Your task to perform on an android device: change the clock display to analog Image 0: 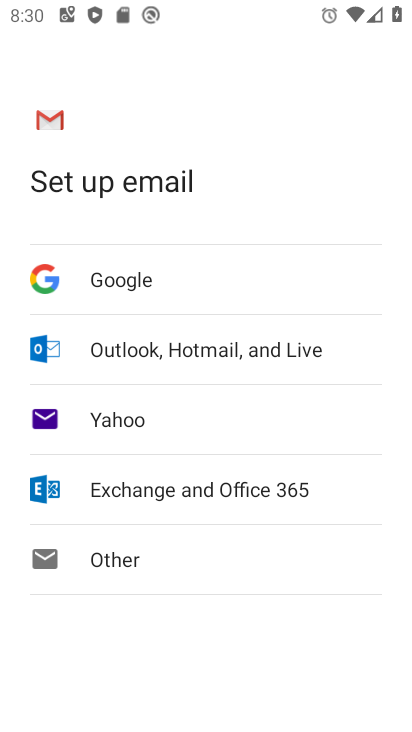
Step 0: press home button
Your task to perform on an android device: change the clock display to analog Image 1: 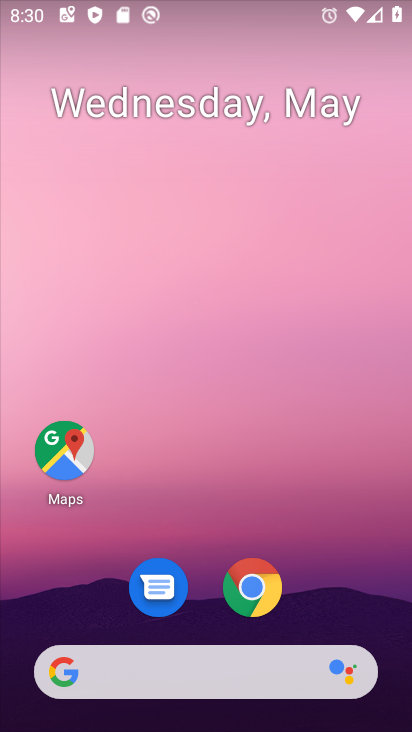
Step 1: drag from (196, 624) to (237, 136)
Your task to perform on an android device: change the clock display to analog Image 2: 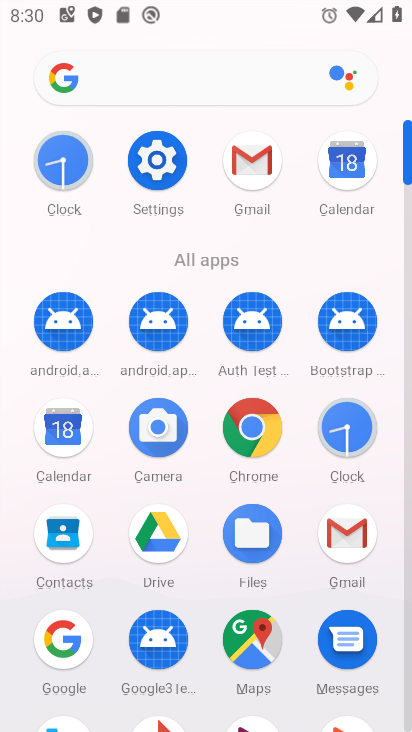
Step 2: click (342, 446)
Your task to perform on an android device: change the clock display to analog Image 3: 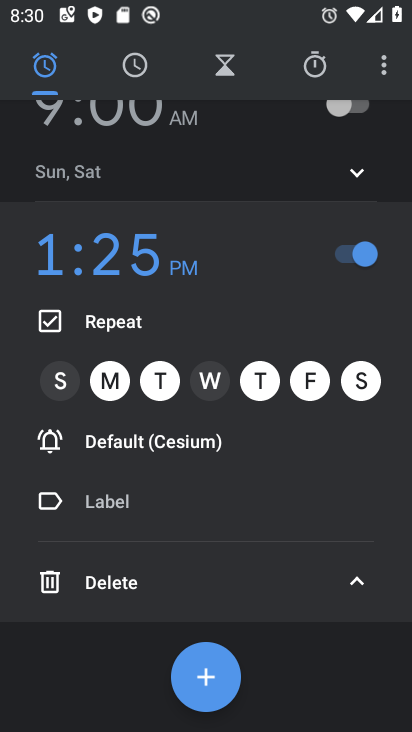
Step 3: click (377, 74)
Your task to perform on an android device: change the clock display to analog Image 4: 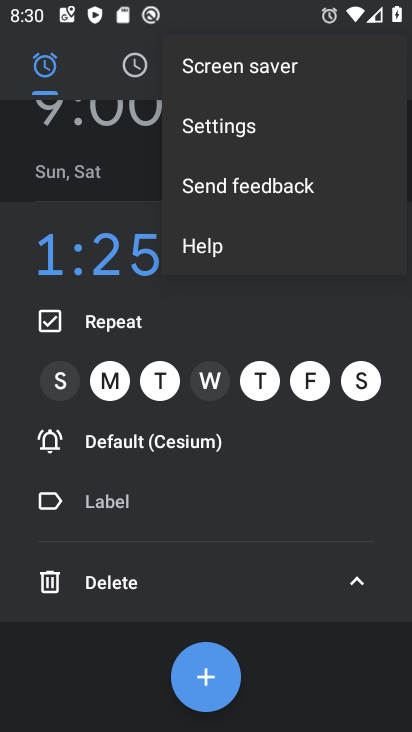
Step 4: click (226, 140)
Your task to perform on an android device: change the clock display to analog Image 5: 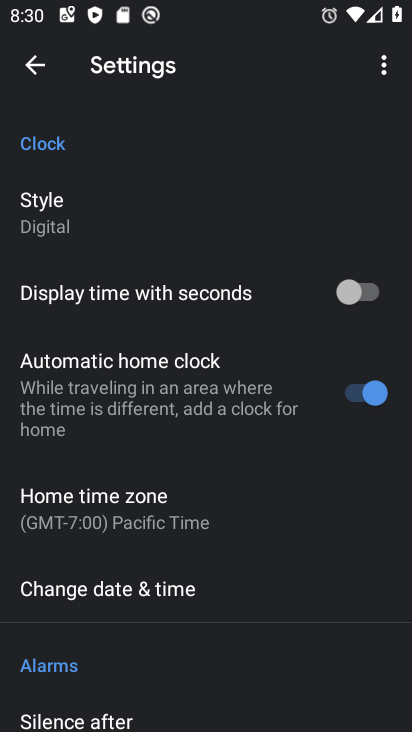
Step 5: click (82, 224)
Your task to perform on an android device: change the clock display to analog Image 6: 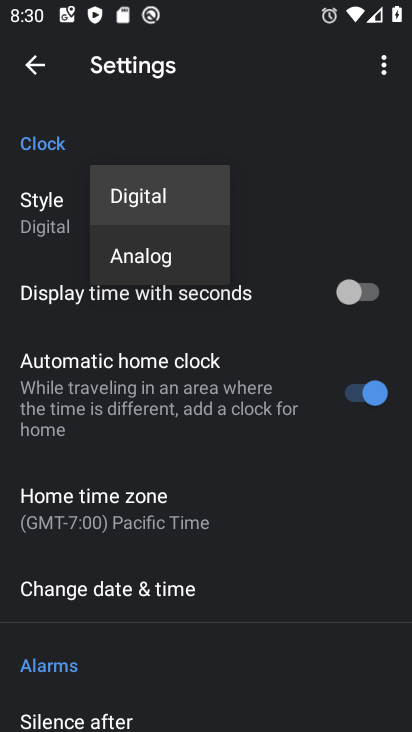
Step 6: click (108, 263)
Your task to perform on an android device: change the clock display to analog Image 7: 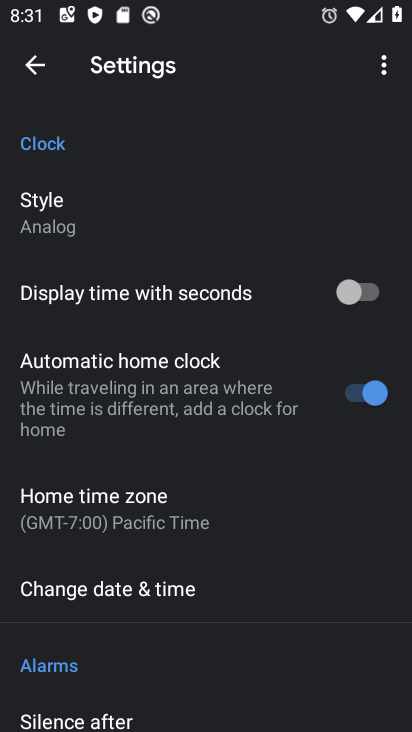
Step 7: task complete